Your task to perform on an android device: Go to ESPN.com Image 0: 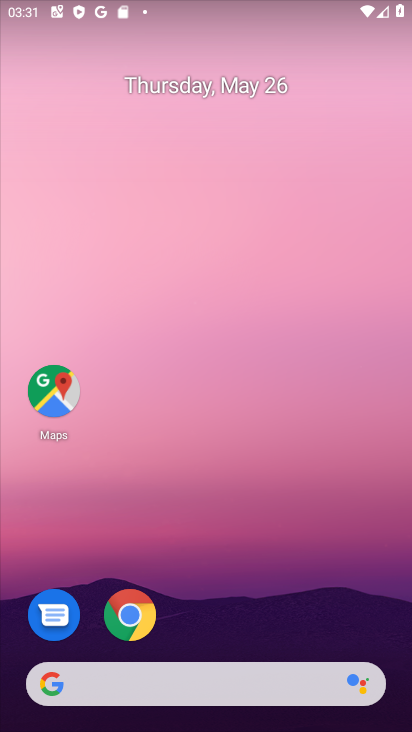
Step 0: click (138, 617)
Your task to perform on an android device: Go to ESPN.com Image 1: 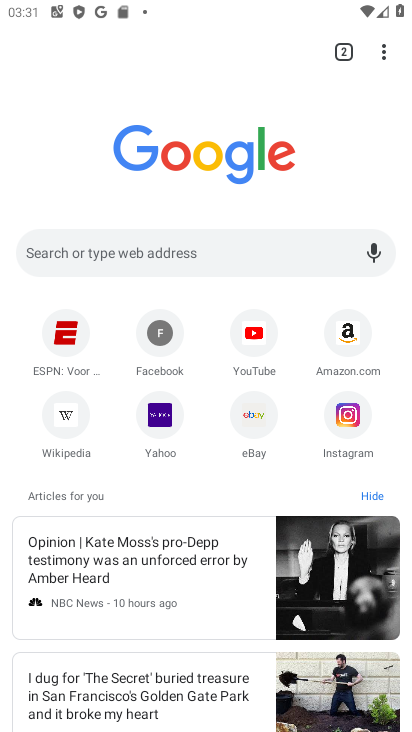
Step 1: click (56, 341)
Your task to perform on an android device: Go to ESPN.com Image 2: 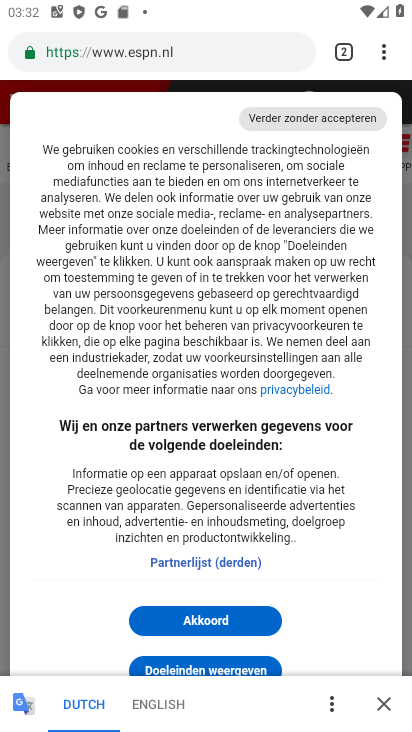
Step 2: task complete